Your task to perform on an android device: open wifi settings Image 0: 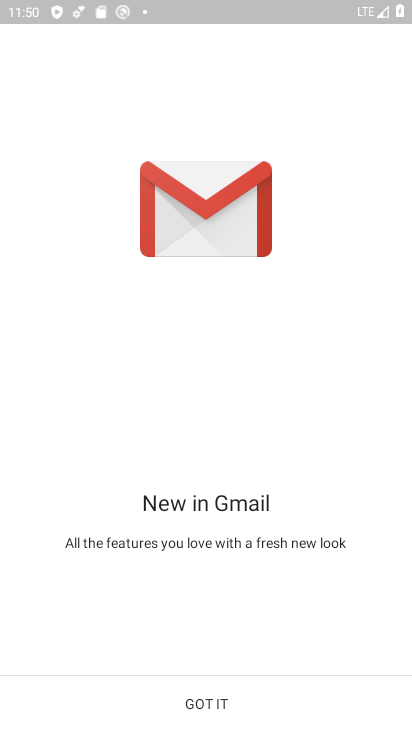
Step 0: press back button
Your task to perform on an android device: open wifi settings Image 1: 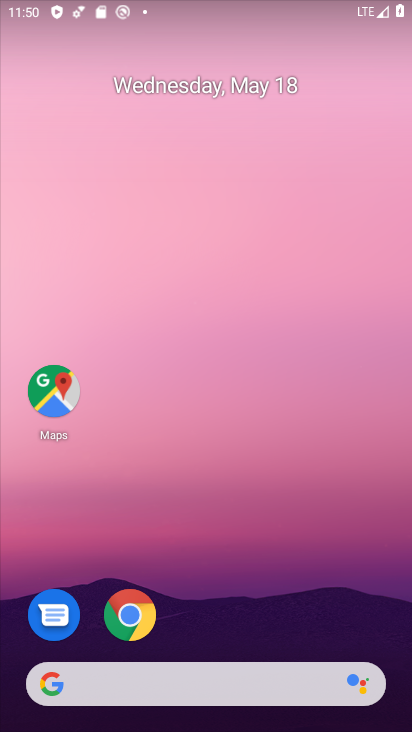
Step 1: drag from (196, 591) to (174, 44)
Your task to perform on an android device: open wifi settings Image 2: 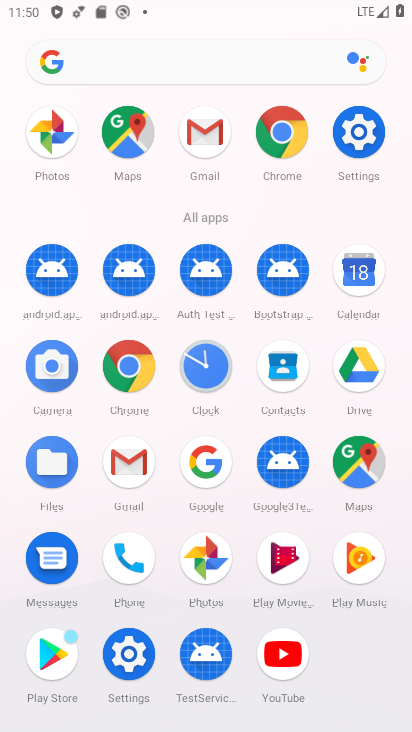
Step 2: click (361, 128)
Your task to perform on an android device: open wifi settings Image 3: 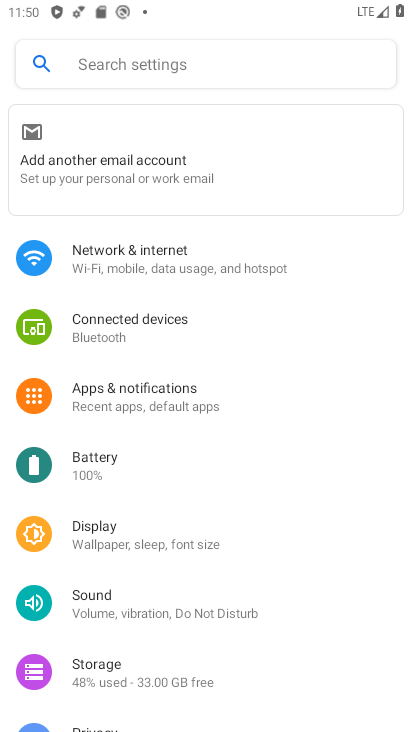
Step 3: click (179, 271)
Your task to perform on an android device: open wifi settings Image 4: 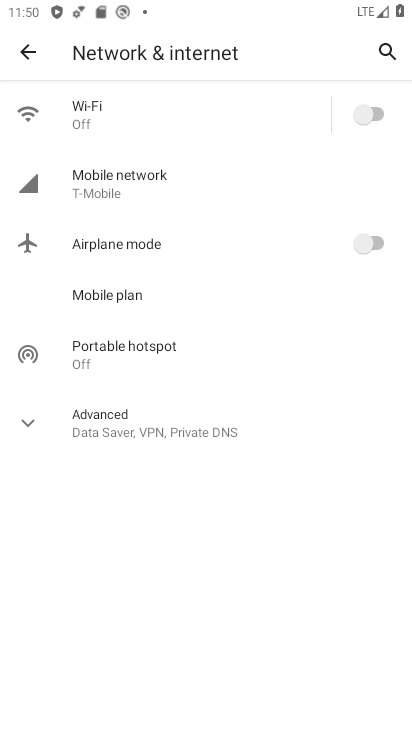
Step 4: click (116, 105)
Your task to perform on an android device: open wifi settings Image 5: 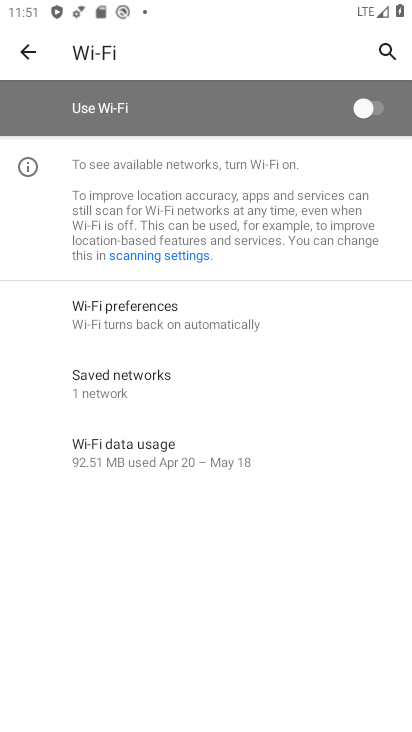
Step 5: task complete